Your task to perform on an android device: turn notification dots off Image 0: 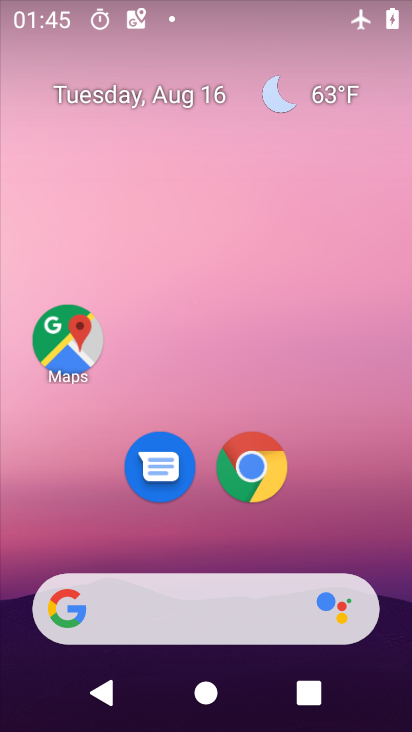
Step 0: press home button
Your task to perform on an android device: turn notification dots off Image 1: 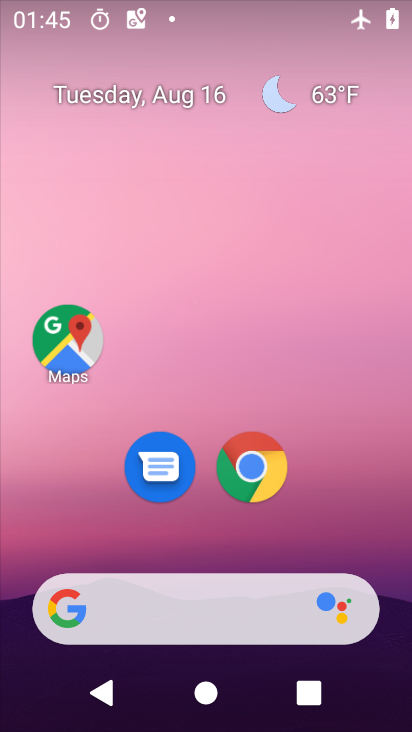
Step 1: drag from (345, 528) to (377, 173)
Your task to perform on an android device: turn notification dots off Image 2: 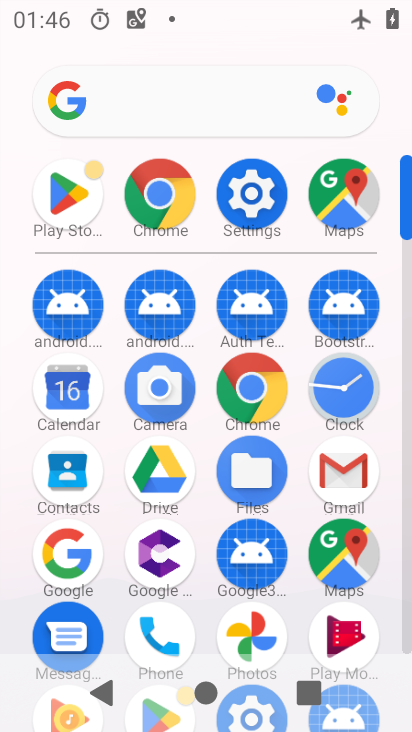
Step 2: click (249, 199)
Your task to perform on an android device: turn notification dots off Image 3: 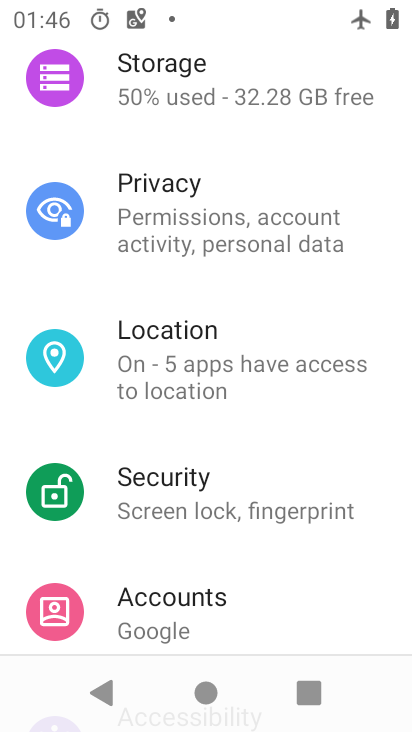
Step 3: drag from (377, 182) to (377, 276)
Your task to perform on an android device: turn notification dots off Image 4: 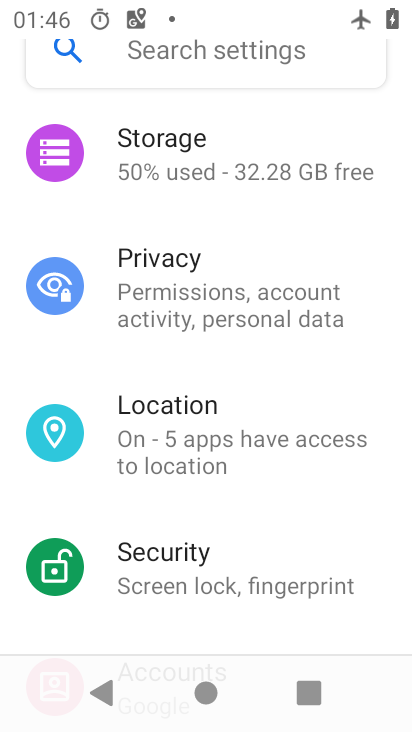
Step 4: drag from (397, 148) to (394, 273)
Your task to perform on an android device: turn notification dots off Image 5: 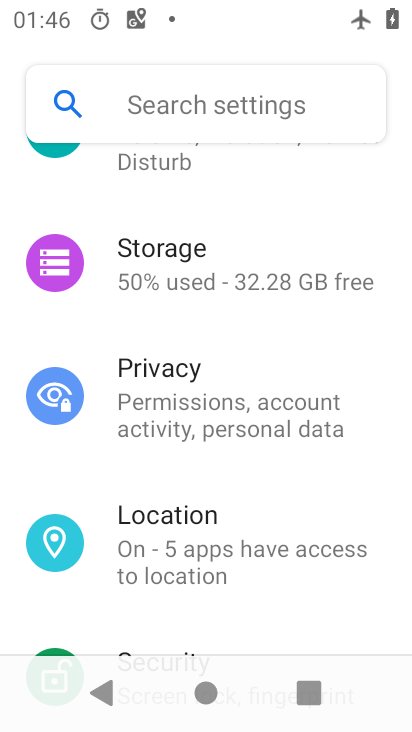
Step 5: drag from (381, 167) to (377, 313)
Your task to perform on an android device: turn notification dots off Image 6: 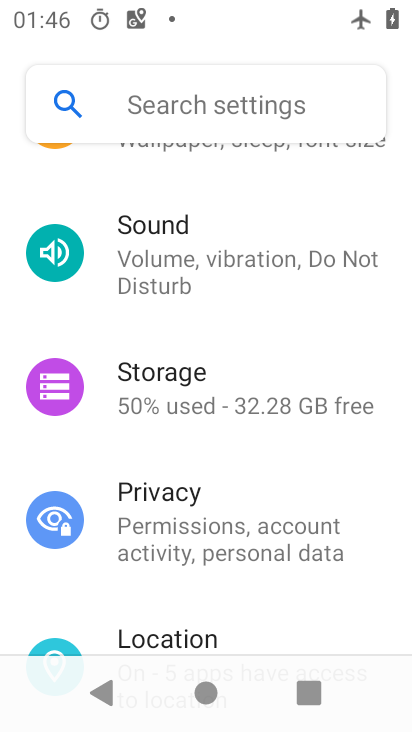
Step 6: drag from (374, 176) to (382, 322)
Your task to perform on an android device: turn notification dots off Image 7: 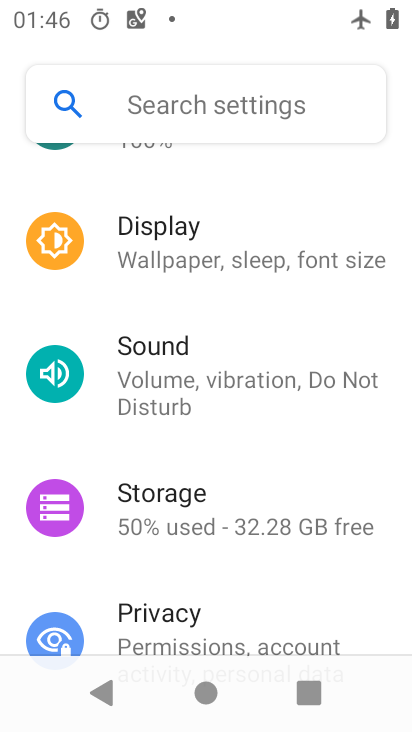
Step 7: drag from (364, 197) to (361, 349)
Your task to perform on an android device: turn notification dots off Image 8: 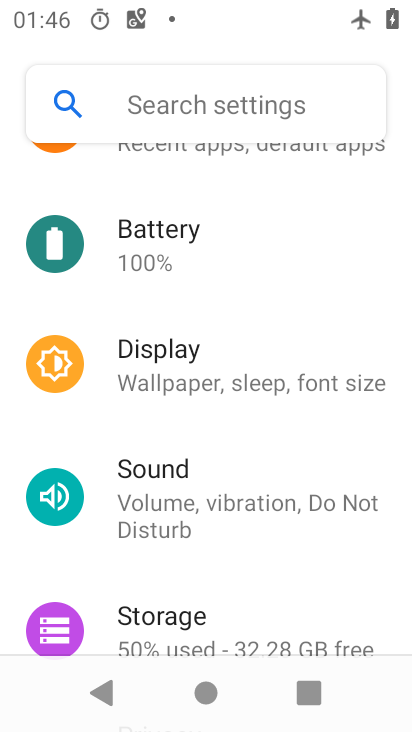
Step 8: drag from (364, 228) to (365, 370)
Your task to perform on an android device: turn notification dots off Image 9: 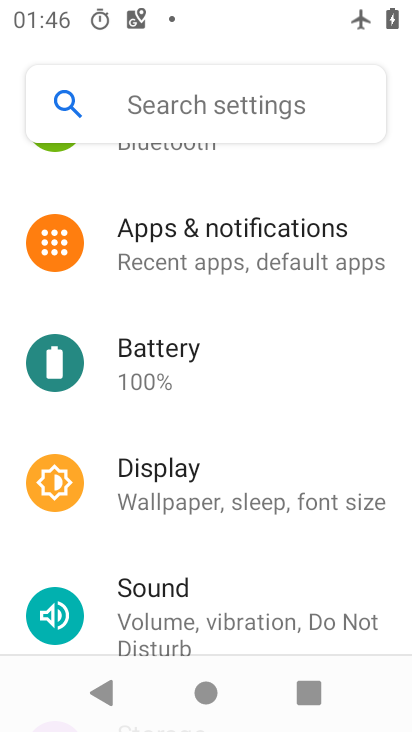
Step 9: drag from (381, 318) to (363, 472)
Your task to perform on an android device: turn notification dots off Image 10: 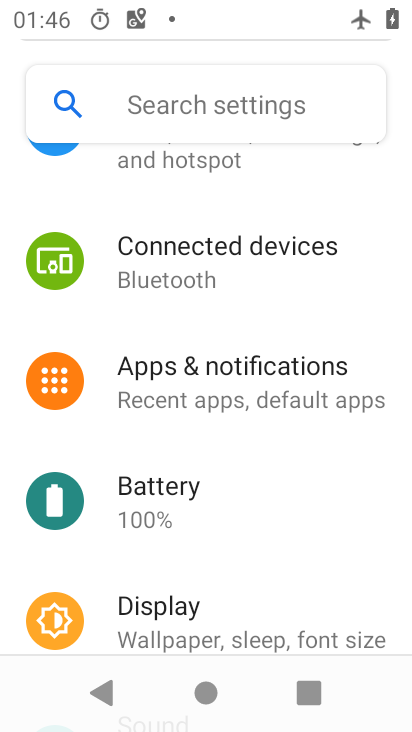
Step 10: drag from (383, 240) to (365, 397)
Your task to perform on an android device: turn notification dots off Image 11: 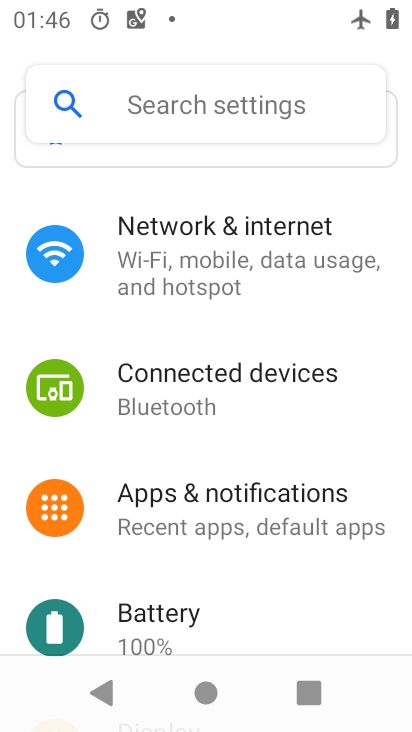
Step 11: drag from (366, 290) to (365, 446)
Your task to perform on an android device: turn notification dots off Image 12: 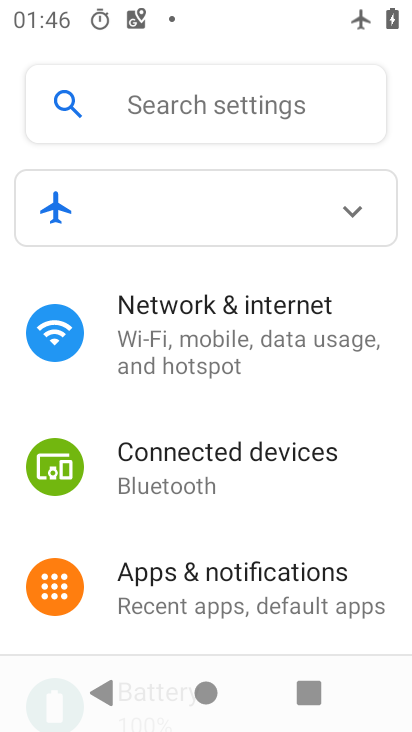
Step 12: click (282, 585)
Your task to perform on an android device: turn notification dots off Image 13: 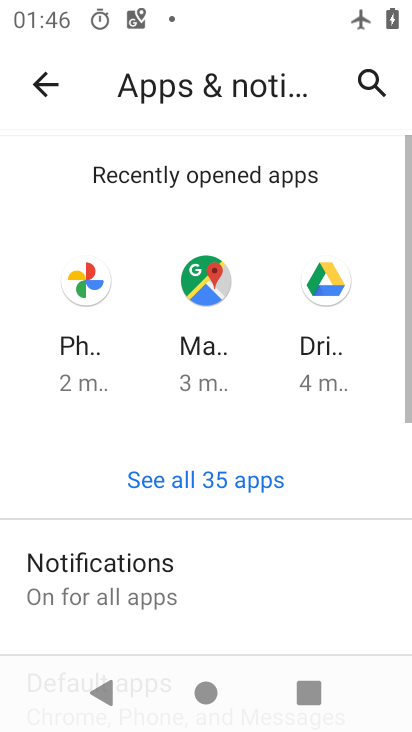
Step 13: drag from (285, 562) to (311, 417)
Your task to perform on an android device: turn notification dots off Image 14: 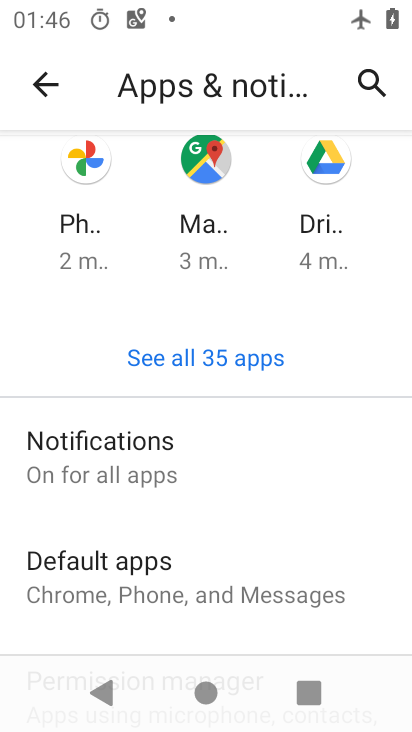
Step 14: click (267, 450)
Your task to perform on an android device: turn notification dots off Image 15: 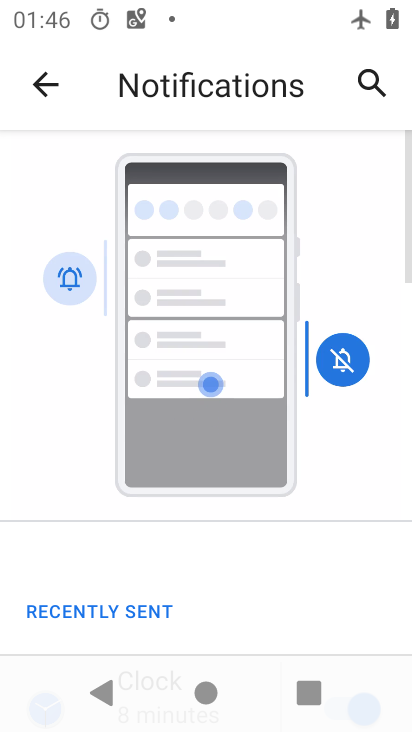
Step 15: drag from (275, 541) to (294, 430)
Your task to perform on an android device: turn notification dots off Image 16: 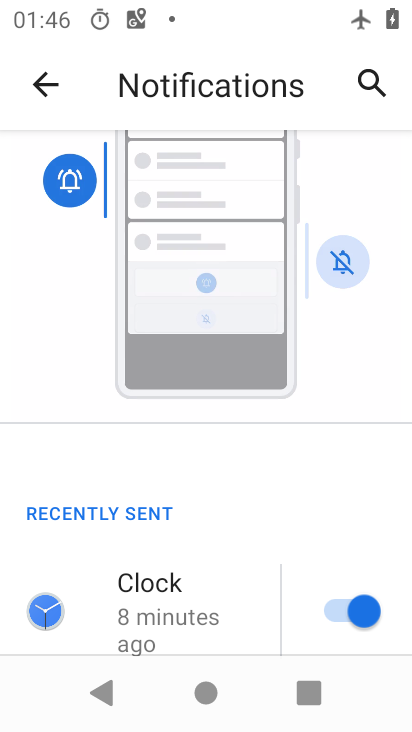
Step 16: drag from (244, 609) to (246, 454)
Your task to perform on an android device: turn notification dots off Image 17: 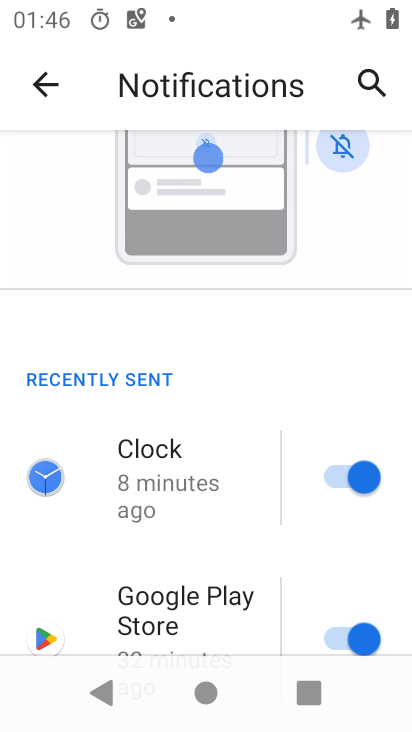
Step 17: drag from (231, 630) to (242, 476)
Your task to perform on an android device: turn notification dots off Image 18: 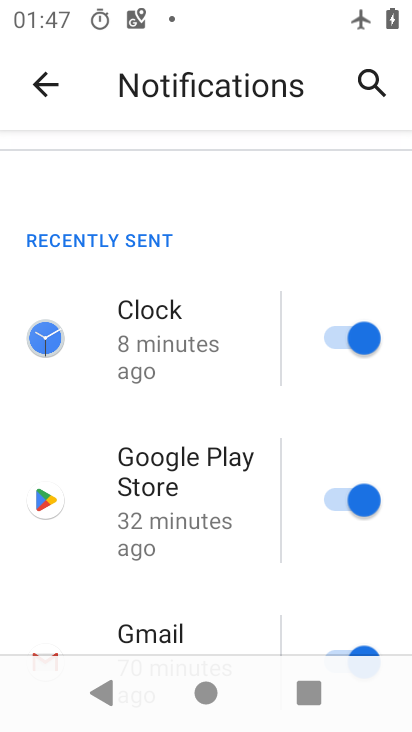
Step 18: drag from (238, 600) to (245, 463)
Your task to perform on an android device: turn notification dots off Image 19: 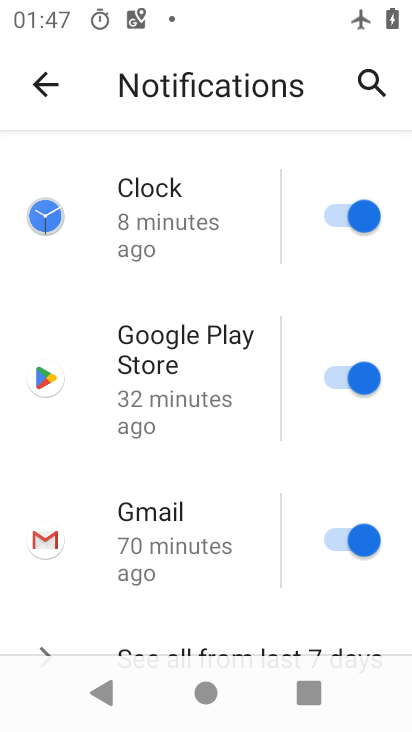
Step 19: drag from (241, 568) to (249, 469)
Your task to perform on an android device: turn notification dots off Image 20: 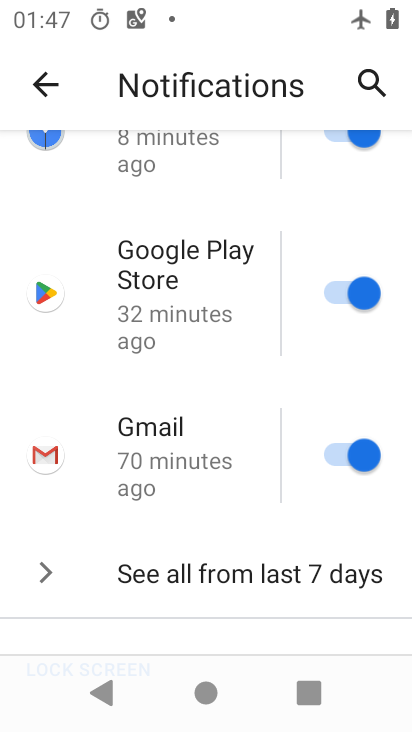
Step 20: drag from (233, 620) to (247, 472)
Your task to perform on an android device: turn notification dots off Image 21: 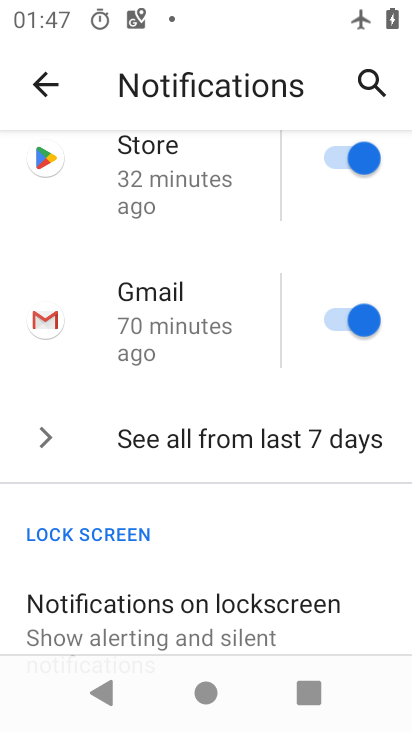
Step 21: drag from (240, 563) to (257, 413)
Your task to perform on an android device: turn notification dots off Image 22: 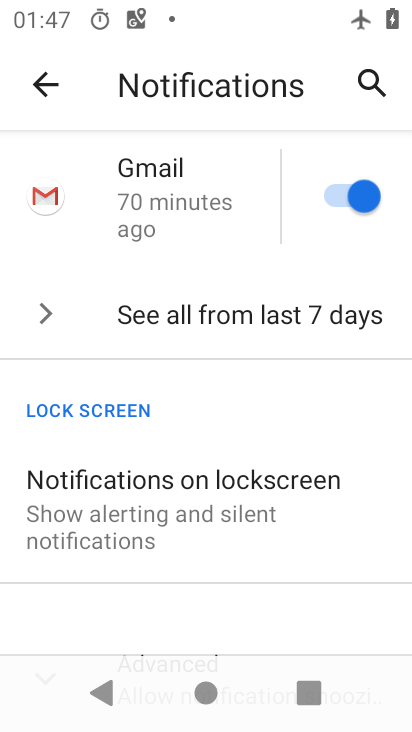
Step 22: drag from (244, 599) to (272, 416)
Your task to perform on an android device: turn notification dots off Image 23: 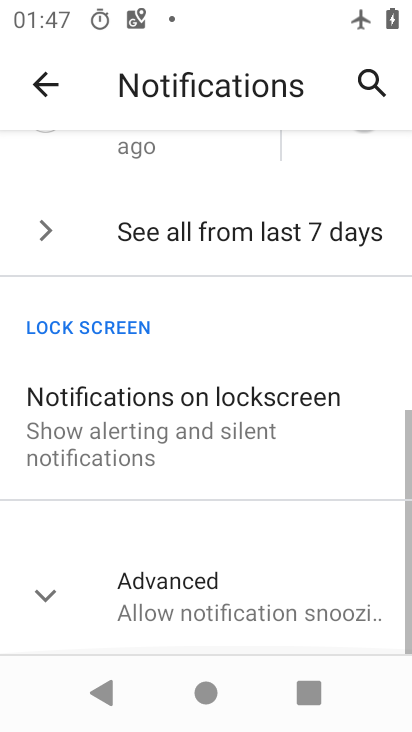
Step 23: click (272, 601)
Your task to perform on an android device: turn notification dots off Image 24: 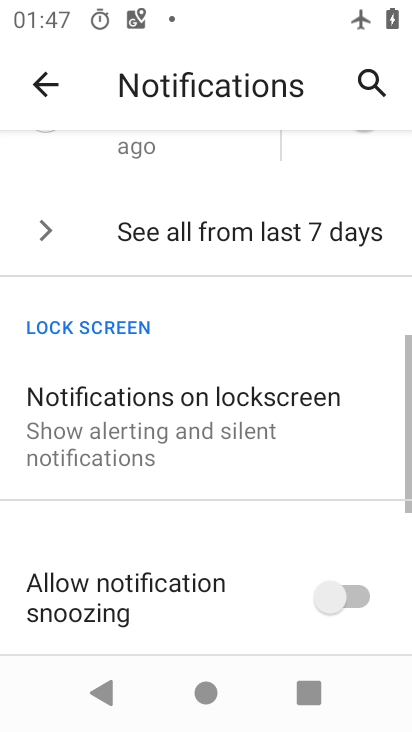
Step 24: drag from (273, 582) to (287, 410)
Your task to perform on an android device: turn notification dots off Image 25: 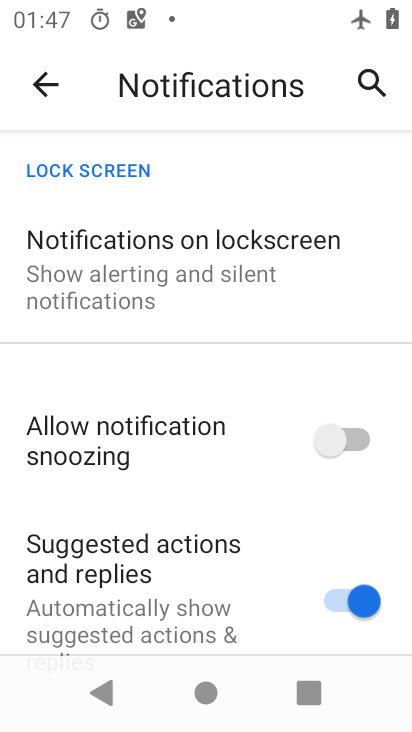
Step 25: drag from (263, 597) to (287, 370)
Your task to perform on an android device: turn notification dots off Image 26: 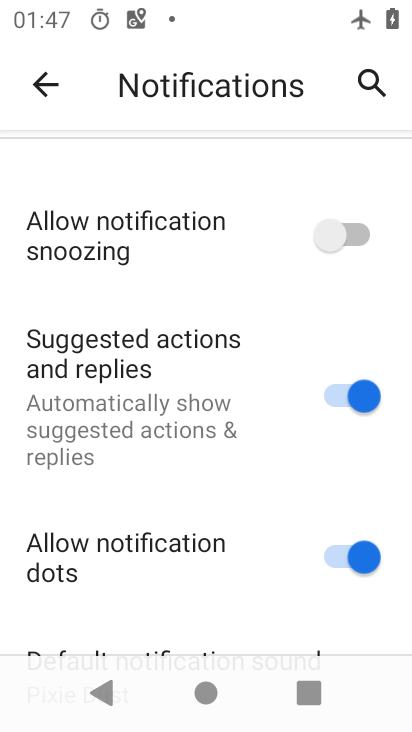
Step 26: drag from (271, 615) to (312, 447)
Your task to perform on an android device: turn notification dots off Image 27: 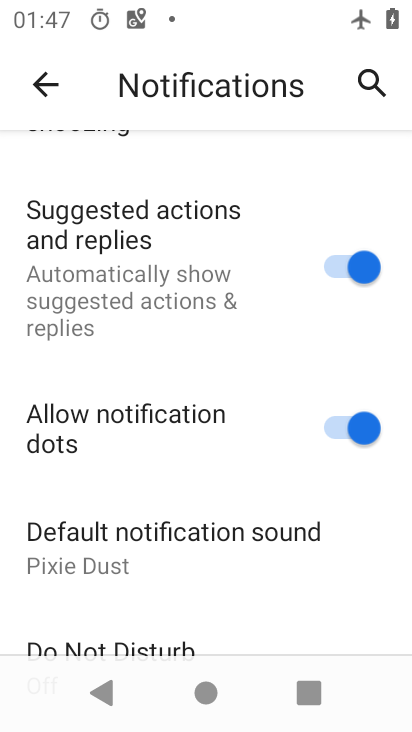
Step 27: click (348, 438)
Your task to perform on an android device: turn notification dots off Image 28: 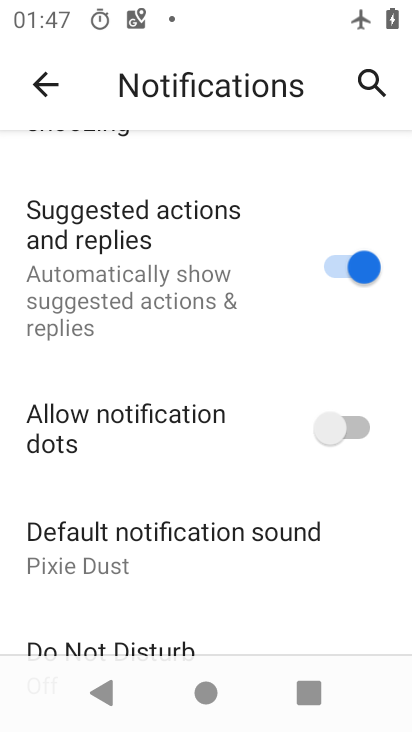
Step 28: task complete